Your task to perform on an android device: visit the assistant section in the google photos Image 0: 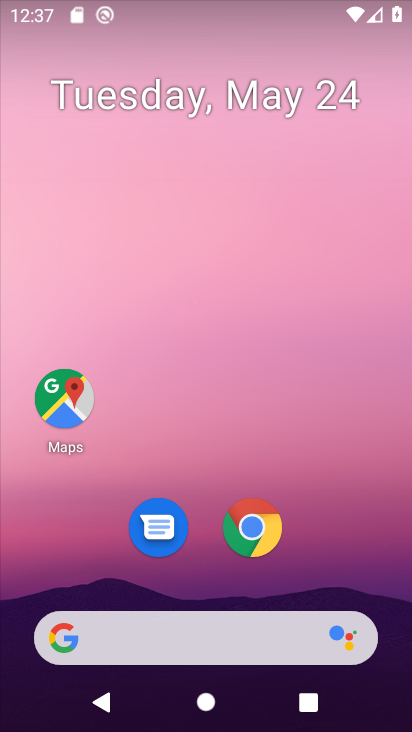
Step 0: drag from (319, 531) to (212, 67)
Your task to perform on an android device: visit the assistant section in the google photos Image 1: 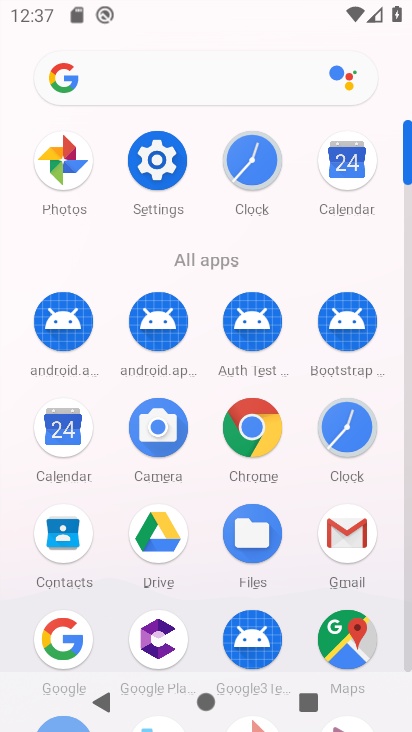
Step 1: click (72, 153)
Your task to perform on an android device: visit the assistant section in the google photos Image 2: 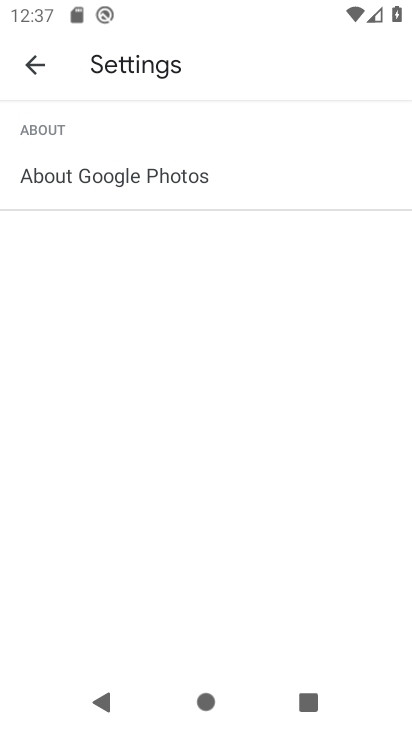
Step 2: click (32, 58)
Your task to perform on an android device: visit the assistant section in the google photos Image 3: 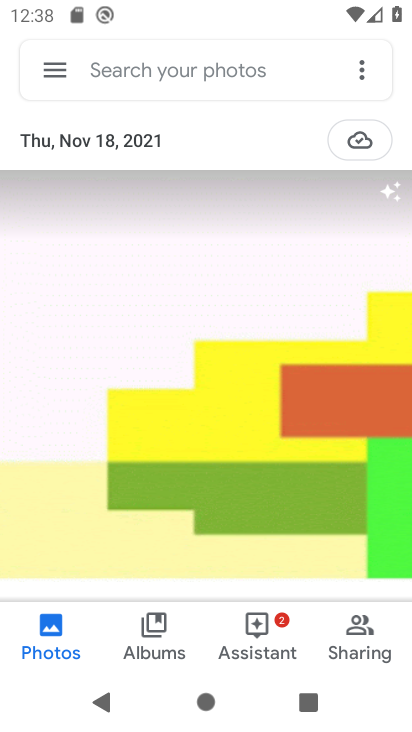
Step 3: click (258, 635)
Your task to perform on an android device: visit the assistant section in the google photos Image 4: 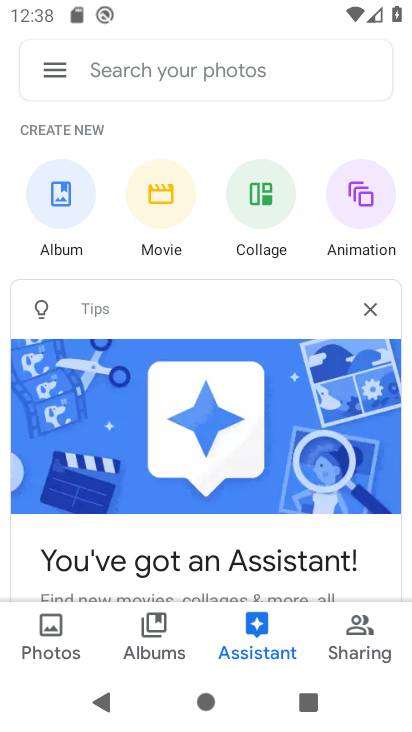
Step 4: task complete